Your task to perform on an android device: turn on javascript in the chrome app Image 0: 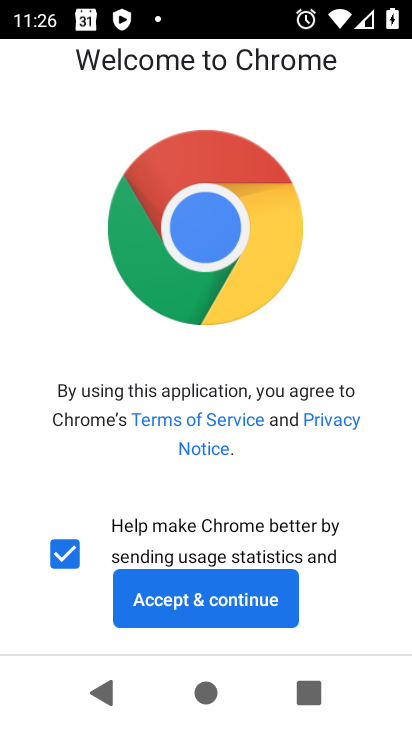
Step 0: click (234, 619)
Your task to perform on an android device: turn on javascript in the chrome app Image 1: 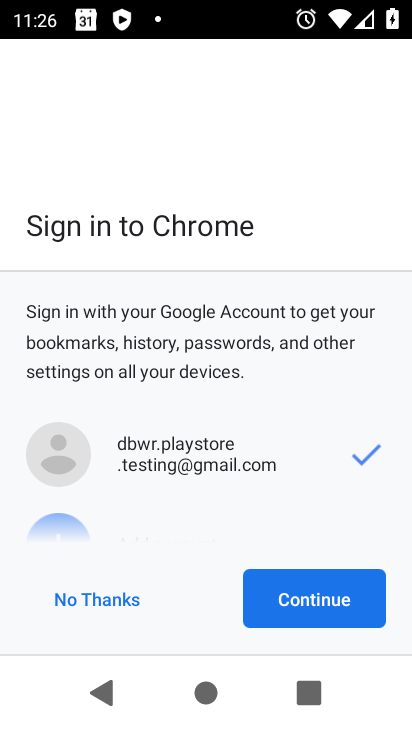
Step 1: click (130, 604)
Your task to perform on an android device: turn on javascript in the chrome app Image 2: 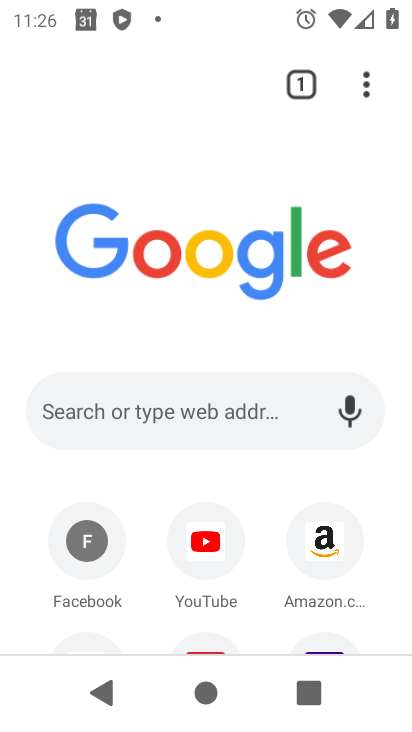
Step 2: drag from (367, 91) to (204, 718)
Your task to perform on an android device: turn on javascript in the chrome app Image 3: 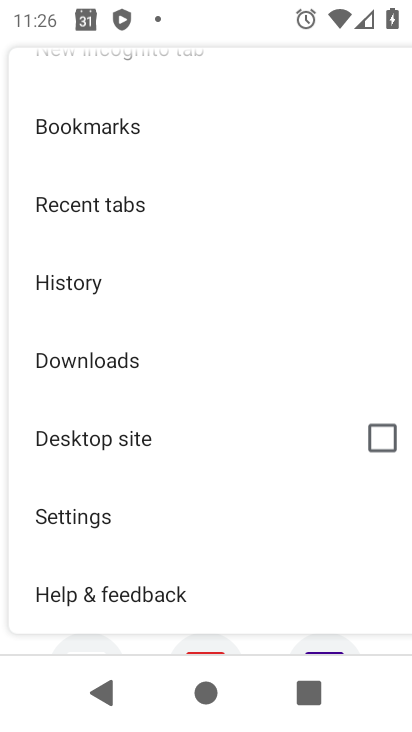
Step 3: drag from (172, 577) to (160, 513)
Your task to perform on an android device: turn on javascript in the chrome app Image 4: 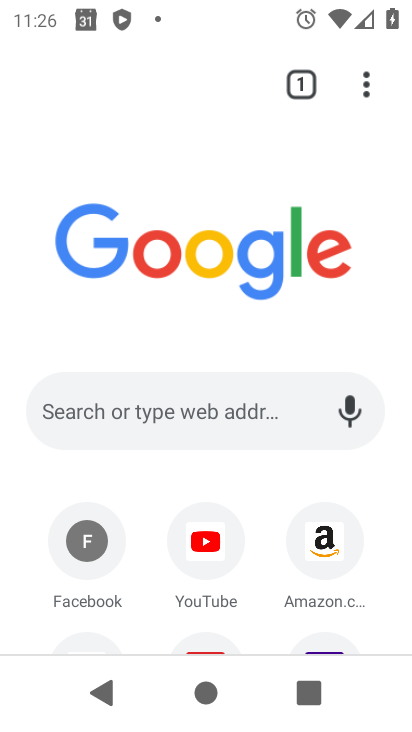
Step 4: drag from (368, 91) to (148, 543)
Your task to perform on an android device: turn on javascript in the chrome app Image 5: 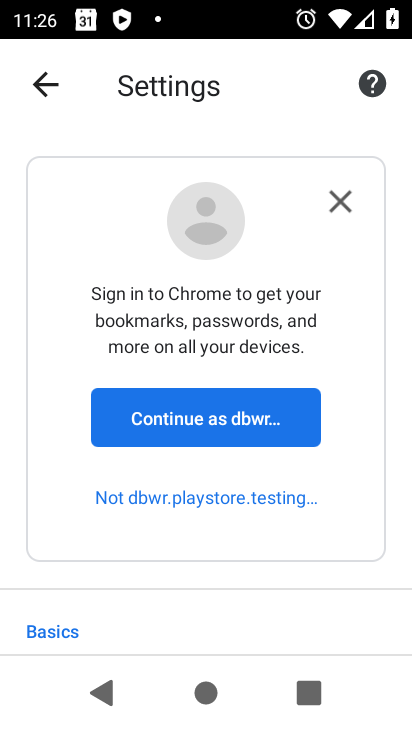
Step 5: drag from (329, 561) to (390, 146)
Your task to perform on an android device: turn on javascript in the chrome app Image 6: 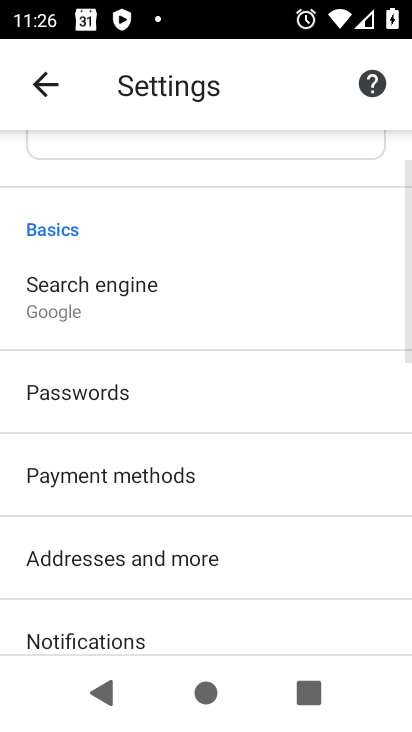
Step 6: drag from (215, 557) to (245, 178)
Your task to perform on an android device: turn on javascript in the chrome app Image 7: 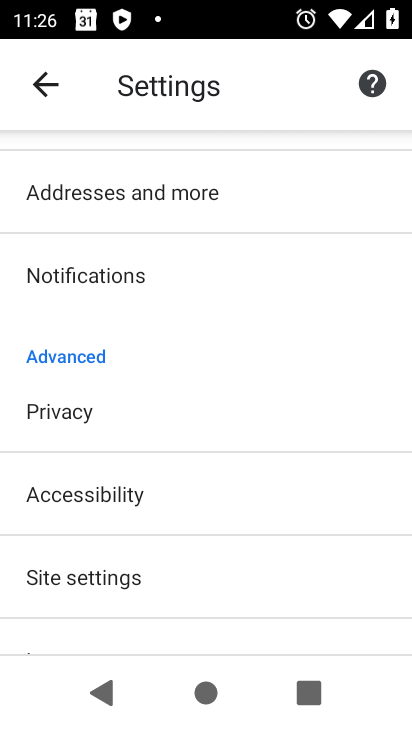
Step 7: click (166, 571)
Your task to perform on an android device: turn on javascript in the chrome app Image 8: 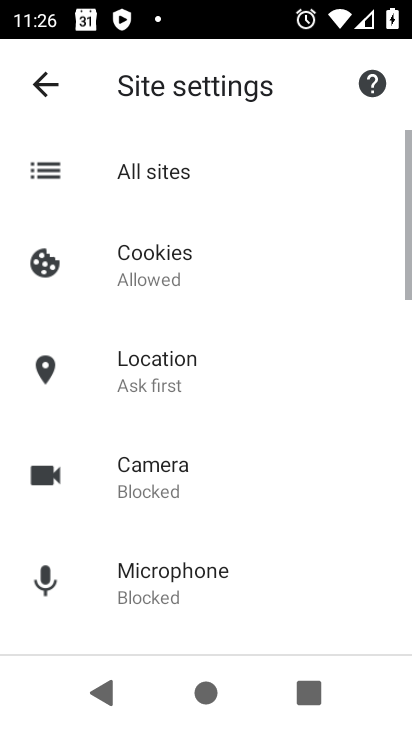
Step 8: drag from (179, 608) to (244, 184)
Your task to perform on an android device: turn on javascript in the chrome app Image 9: 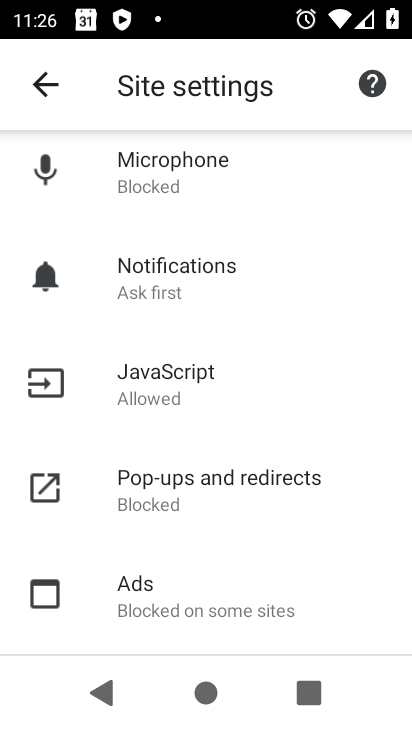
Step 9: click (187, 408)
Your task to perform on an android device: turn on javascript in the chrome app Image 10: 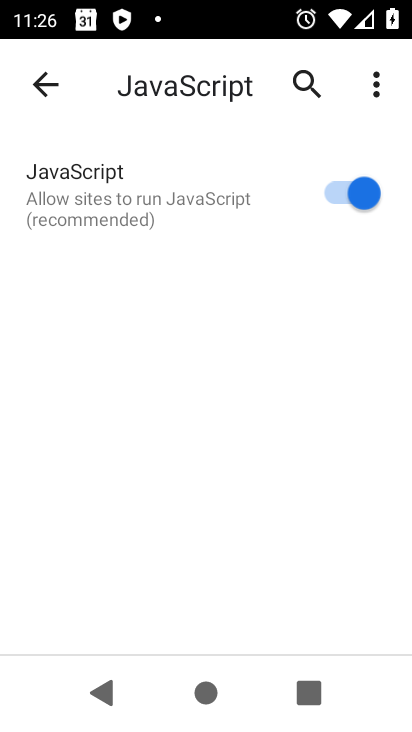
Step 10: task complete